Your task to perform on an android device: choose inbox layout in the gmail app Image 0: 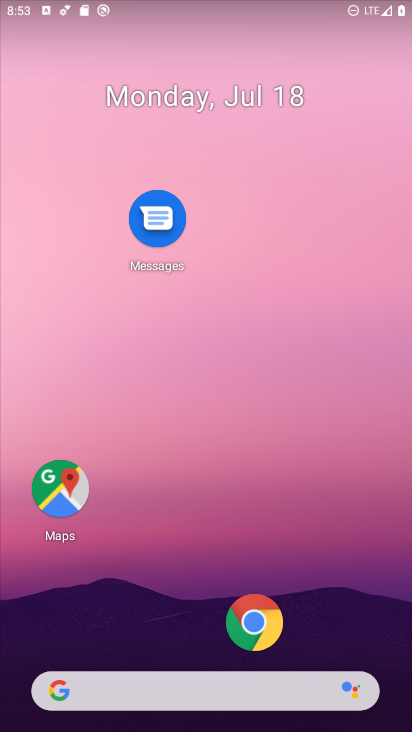
Step 0: drag from (157, 638) to (230, 16)
Your task to perform on an android device: choose inbox layout in the gmail app Image 1: 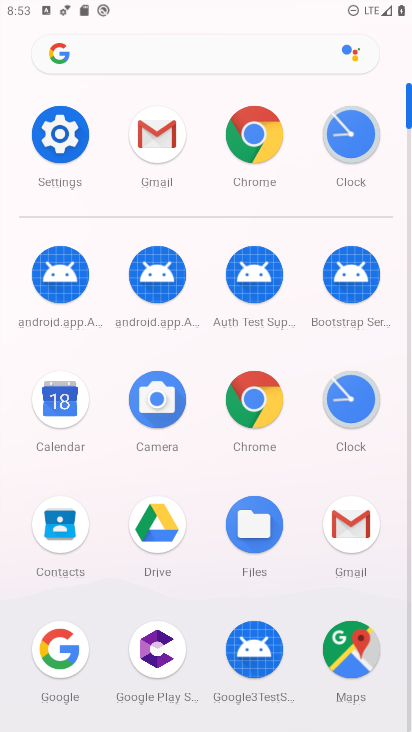
Step 1: click (355, 561)
Your task to perform on an android device: choose inbox layout in the gmail app Image 2: 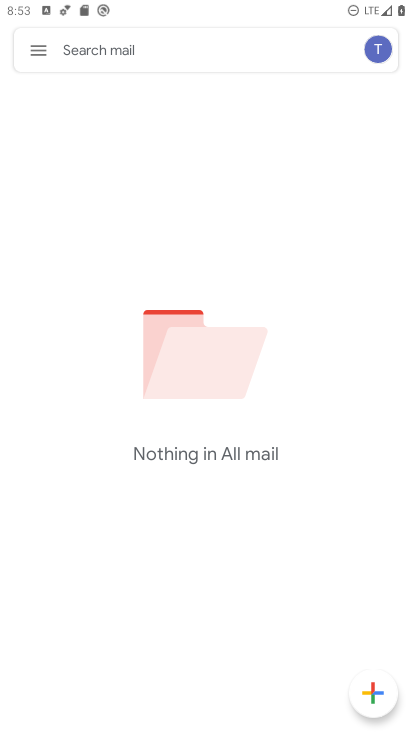
Step 2: click (33, 64)
Your task to perform on an android device: choose inbox layout in the gmail app Image 3: 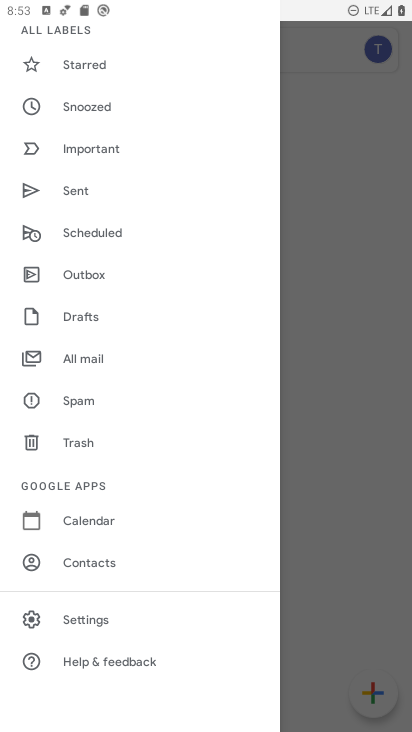
Step 3: click (83, 620)
Your task to perform on an android device: choose inbox layout in the gmail app Image 4: 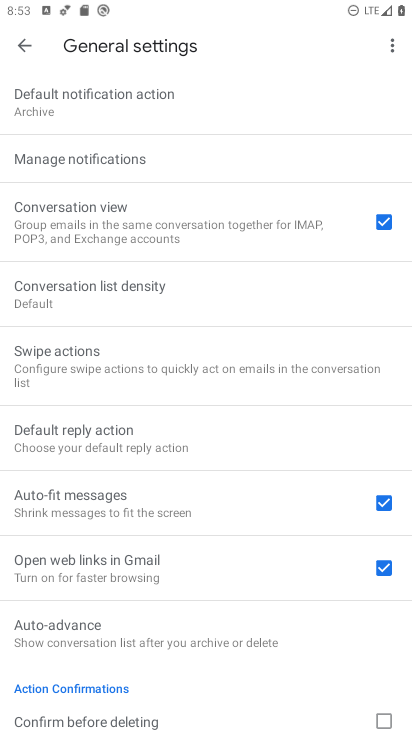
Step 4: task complete